Your task to perform on an android device: Toggle the flashlight Image 0: 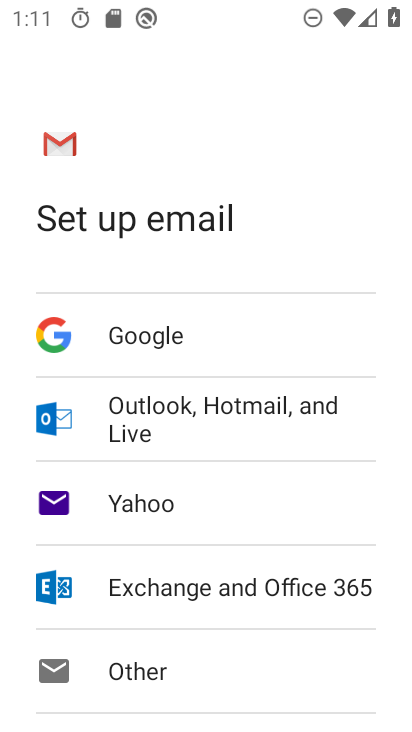
Step 0: press home button
Your task to perform on an android device: Toggle the flashlight Image 1: 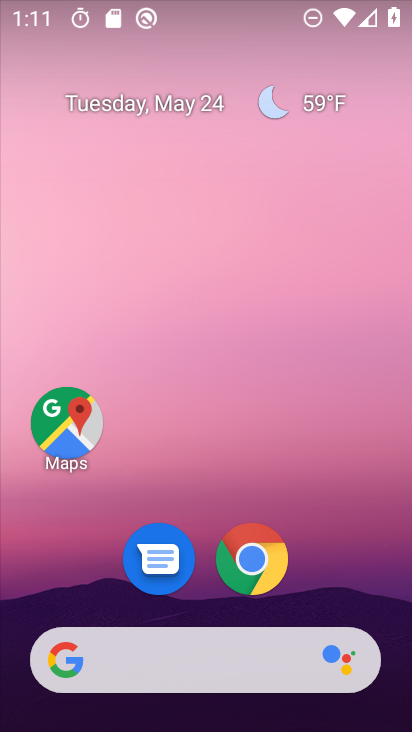
Step 1: drag from (389, 706) to (321, 69)
Your task to perform on an android device: Toggle the flashlight Image 2: 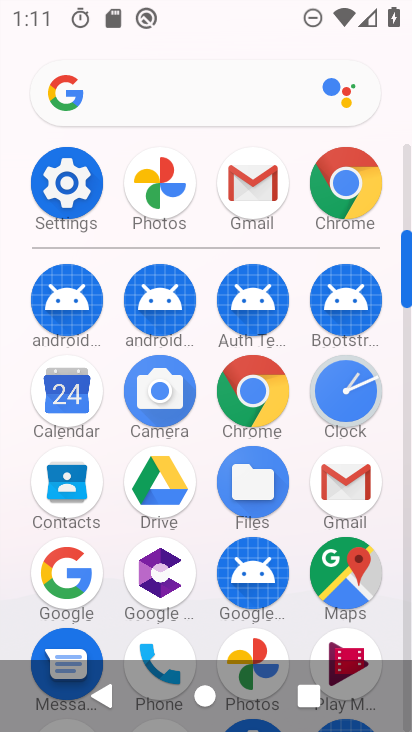
Step 2: click (72, 191)
Your task to perform on an android device: Toggle the flashlight Image 3: 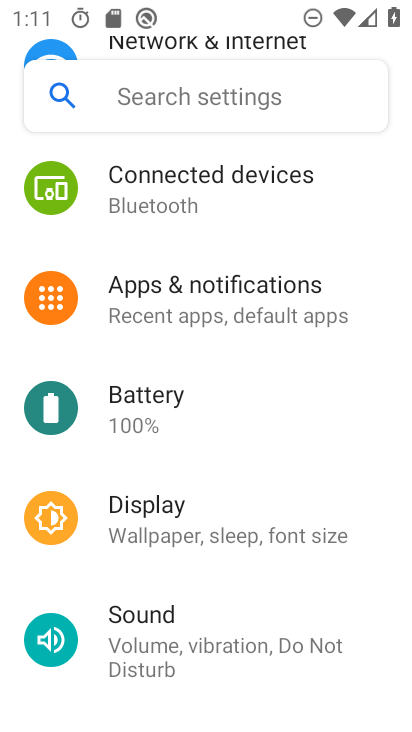
Step 3: click (144, 515)
Your task to perform on an android device: Toggle the flashlight Image 4: 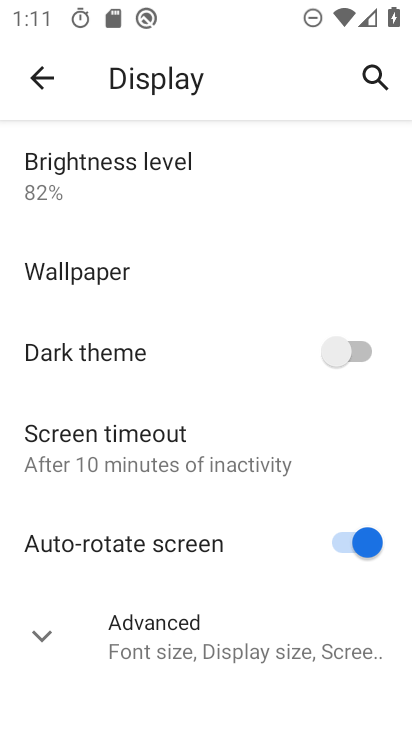
Step 4: drag from (281, 683) to (228, 198)
Your task to perform on an android device: Toggle the flashlight Image 5: 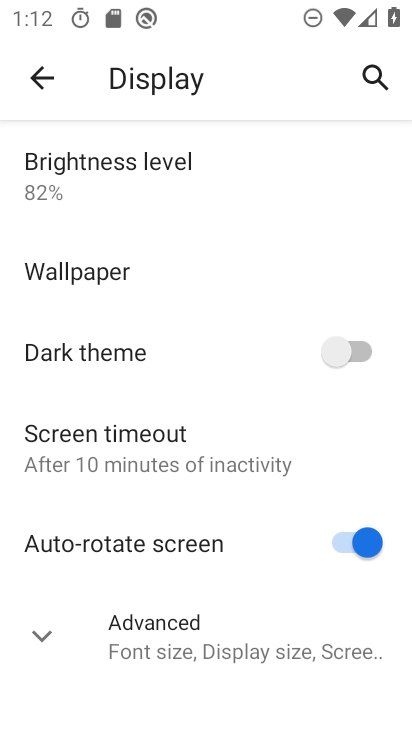
Step 5: drag from (221, 218) to (223, 519)
Your task to perform on an android device: Toggle the flashlight Image 6: 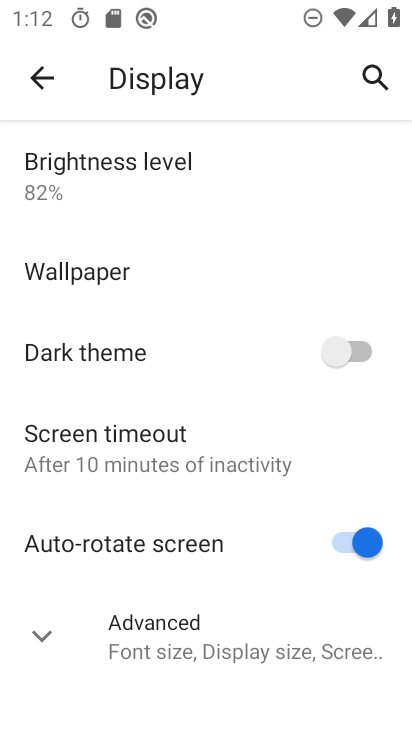
Step 6: click (54, 647)
Your task to perform on an android device: Toggle the flashlight Image 7: 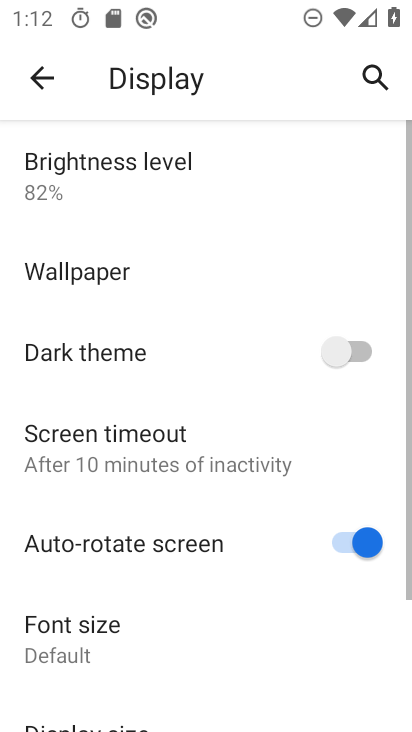
Step 7: click (34, 635)
Your task to perform on an android device: Toggle the flashlight Image 8: 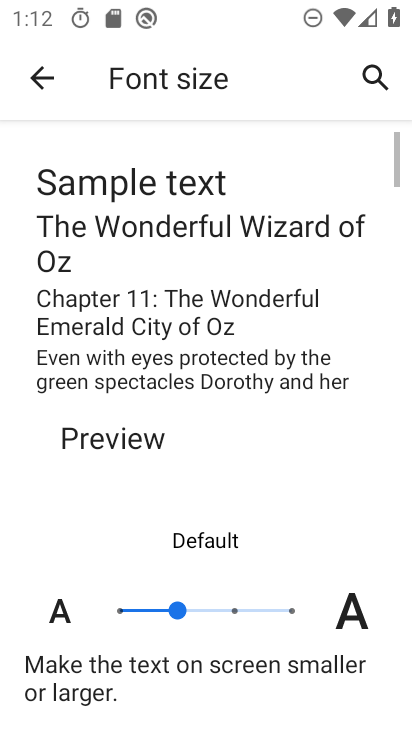
Step 8: drag from (202, 689) to (232, 325)
Your task to perform on an android device: Toggle the flashlight Image 9: 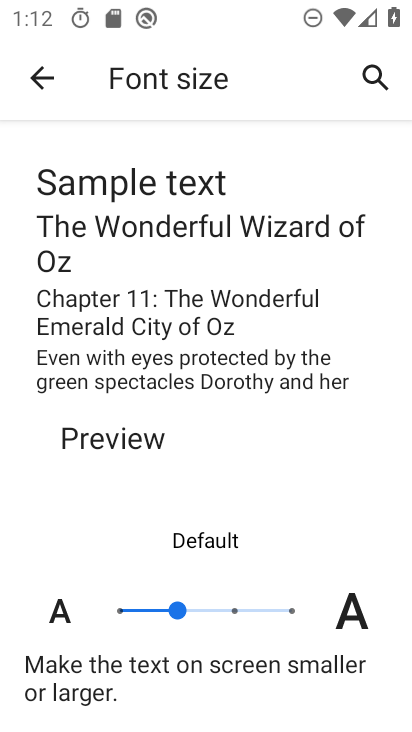
Step 9: click (41, 93)
Your task to perform on an android device: Toggle the flashlight Image 10: 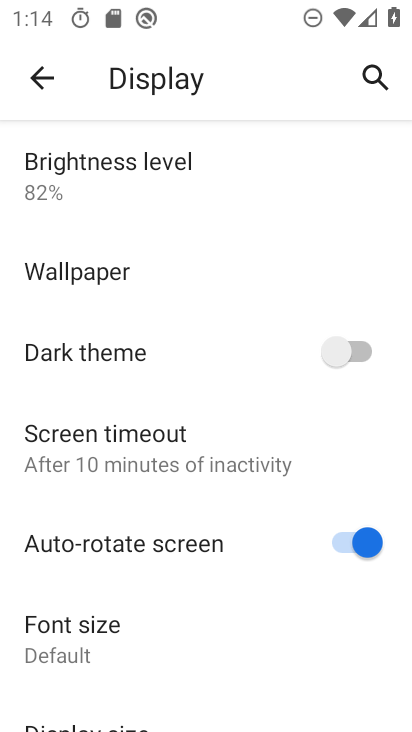
Step 10: task complete